Your task to perform on an android device: Open privacy settings Image 0: 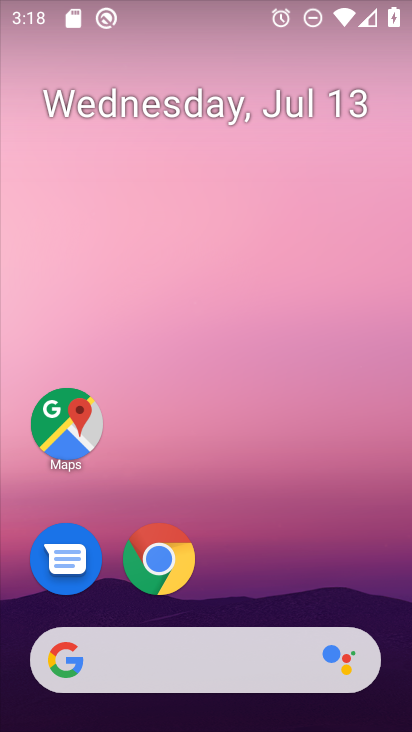
Step 0: drag from (342, 580) to (407, 155)
Your task to perform on an android device: Open privacy settings Image 1: 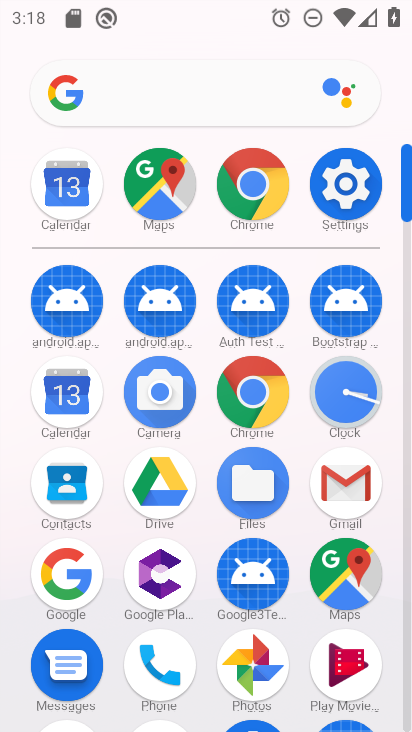
Step 1: click (359, 178)
Your task to perform on an android device: Open privacy settings Image 2: 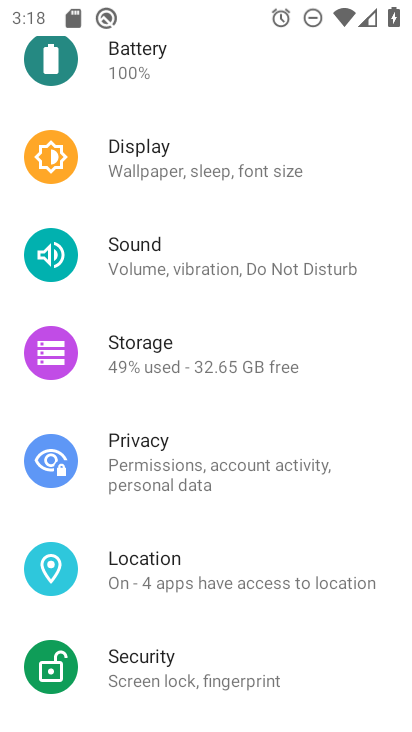
Step 2: drag from (364, 441) to (366, 327)
Your task to perform on an android device: Open privacy settings Image 3: 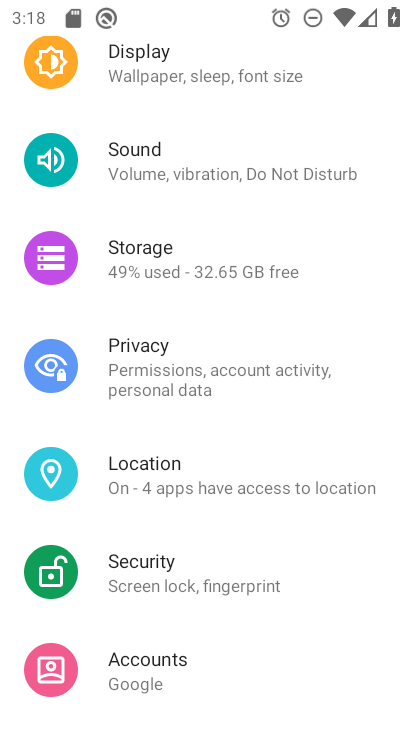
Step 3: drag from (358, 470) to (357, 336)
Your task to perform on an android device: Open privacy settings Image 4: 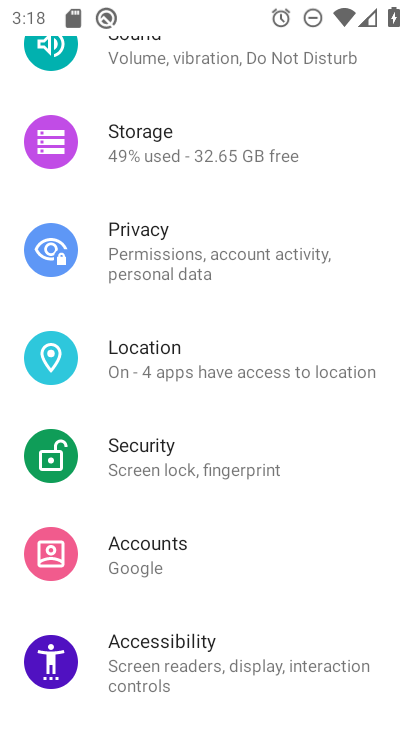
Step 4: drag from (372, 521) to (381, 365)
Your task to perform on an android device: Open privacy settings Image 5: 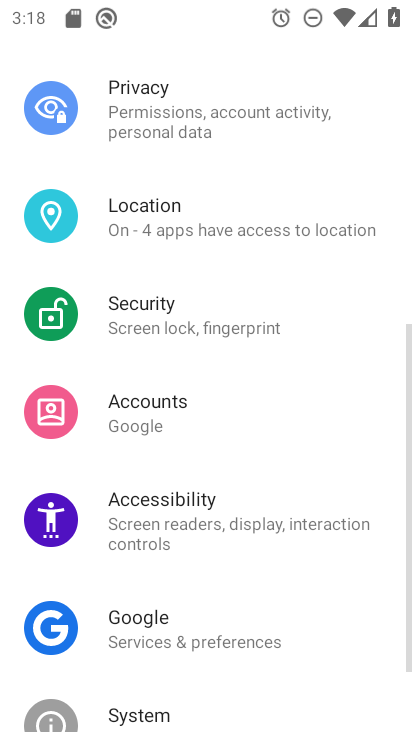
Step 5: drag from (352, 537) to (353, 412)
Your task to perform on an android device: Open privacy settings Image 6: 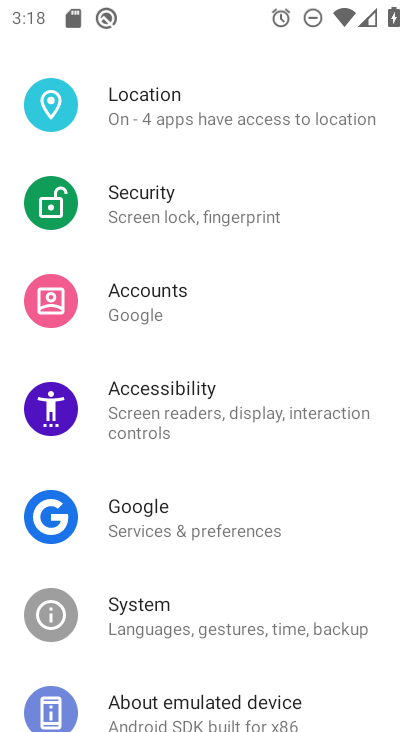
Step 6: drag from (334, 549) to (333, 475)
Your task to perform on an android device: Open privacy settings Image 7: 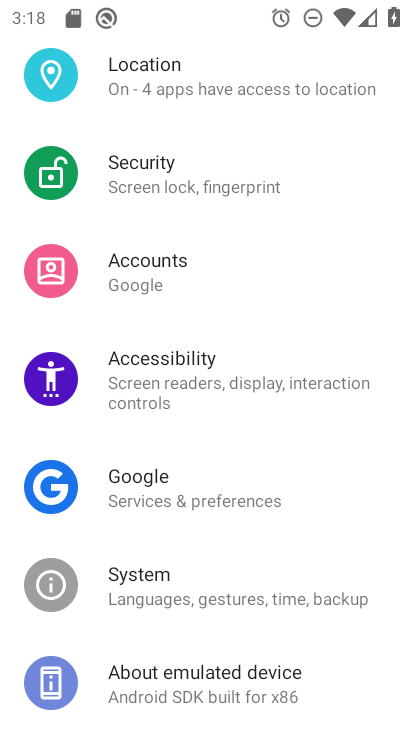
Step 7: drag from (347, 434) to (350, 540)
Your task to perform on an android device: Open privacy settings Image 8: 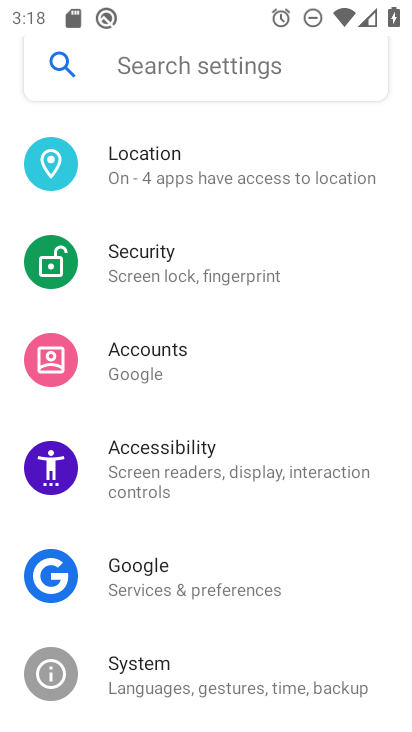
Step 8: drag from (348, 397) to (346, 512)
Your task to perform on an android device: Open privacy settings Image 9: 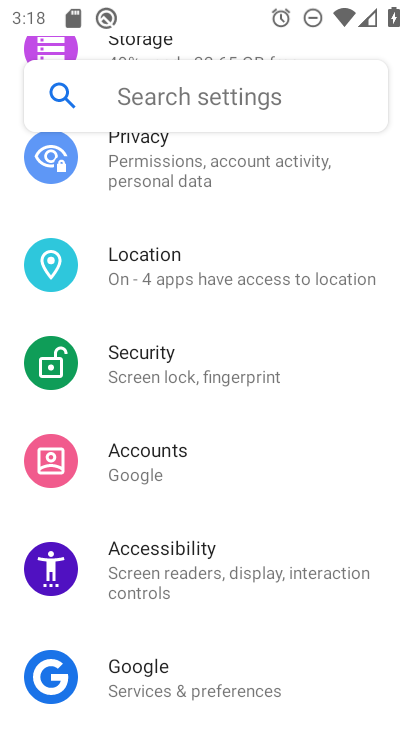
Step 9: drag from (346, 379) to (346, 481)
Your task to perform on an android device: Open privacy settings Image 10: 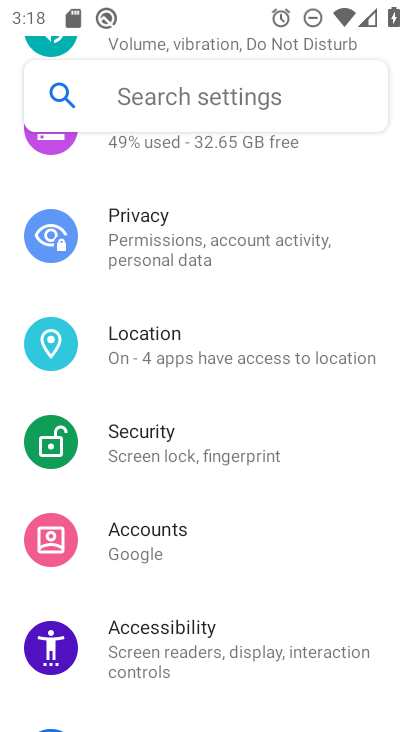
Step 10: drag from (352, 354) to (353, 481)
Your task to perform on an android device: Open privacy settings Image 11: 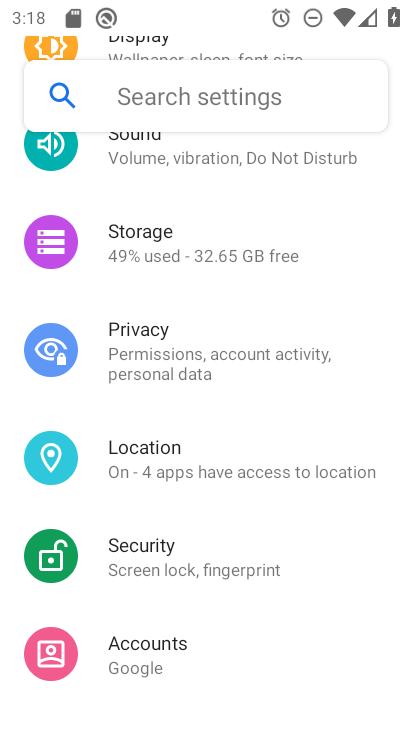
Step 11: drag from (375, 355) to (371, 627)
Your task to perform on an android device: Open privacy settings Image 12: 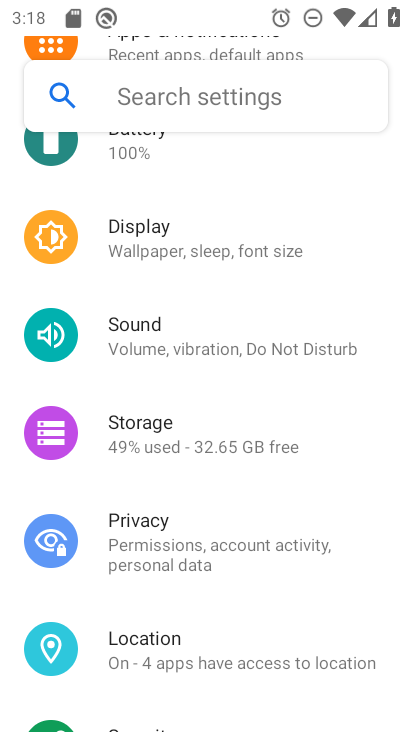
Step 12: click (255, 551)
Your task to perform on an android device: Open privacy settings Image 13: 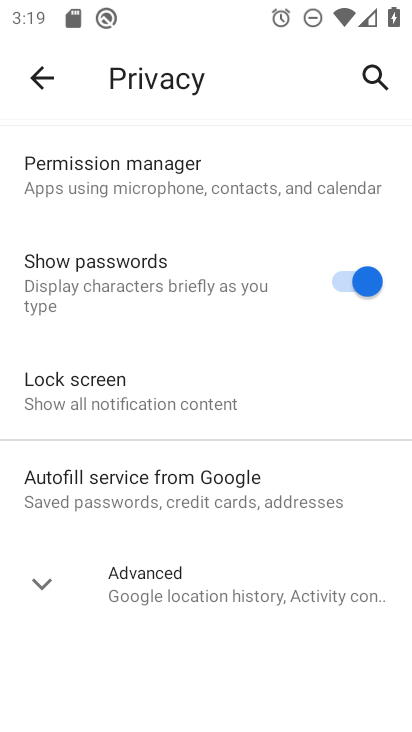
Step 13: task complete